Your task to perform on an android device: Is it going to rain tomorrow? Image 0: 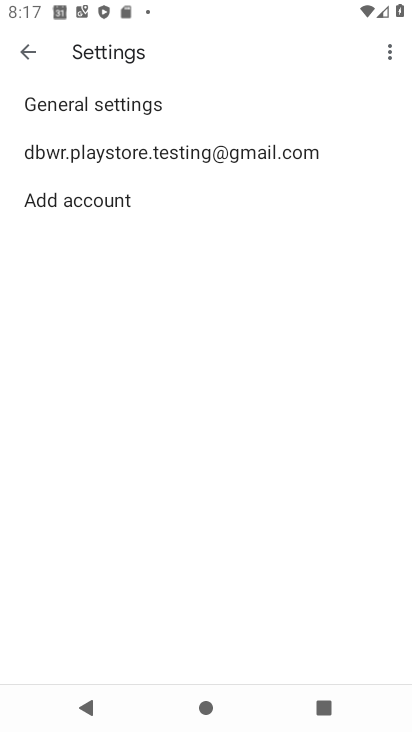
Step 0: press home button
Your task to perform on an android device: Is it going to rain tomorrow? Image 1: 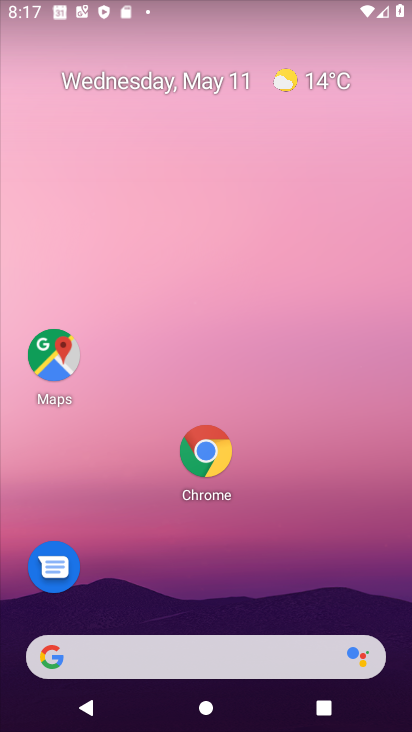
Step 1: click (309, 85)
Your task to perform on an android device: Is it going to rain tomorrow? Image 2: 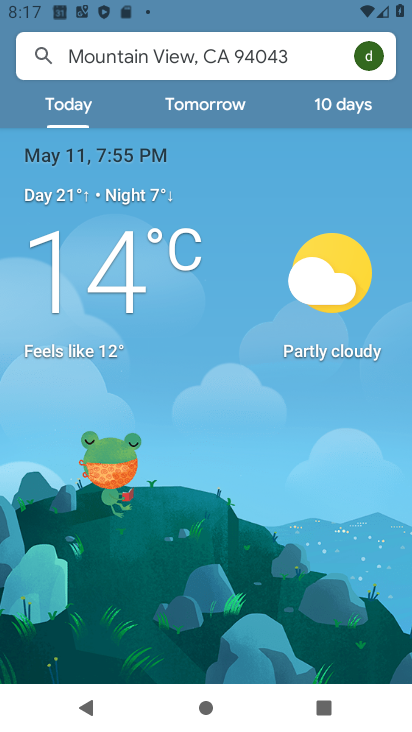
Step 2: click (205, 103)
Your task to perform on an android device: Is it going to rain tomorrow? Image 3: 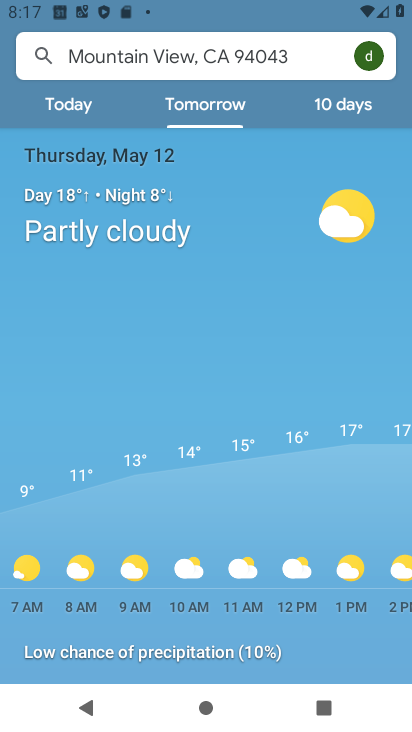
Step 3: task complete